Your task to perform on an android device: turn on the 12-hour format for clock Image 0: 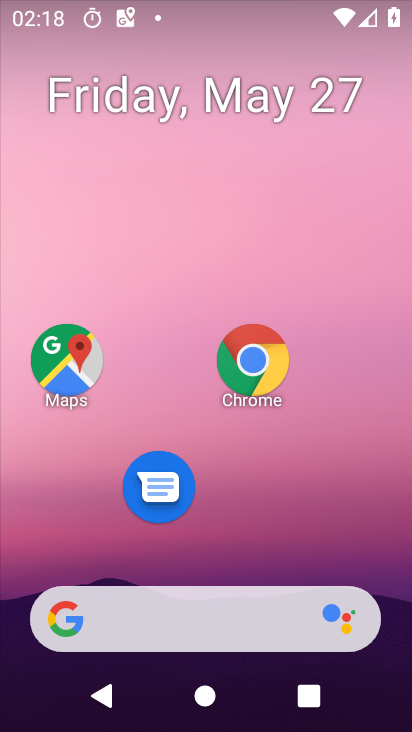
Step 0: drag from (277, 503) to (292, 117)
Your task to perform on an android device: turn on the 12-hour format for clock Image 1: 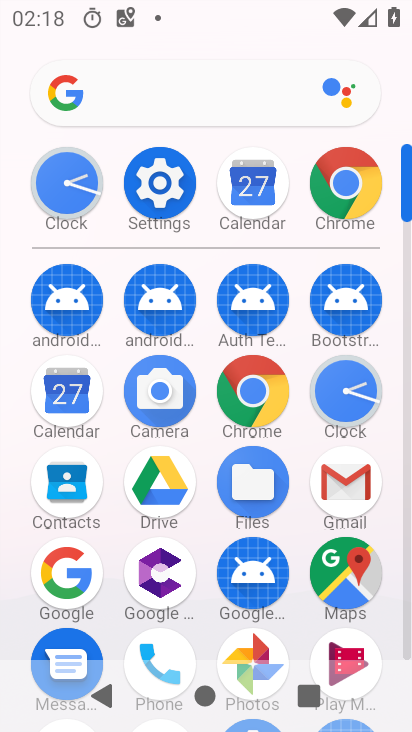
Step 1: click (345, 389)
Your task to perform on an android device: turn on the 12-hour format for clock Image 2: 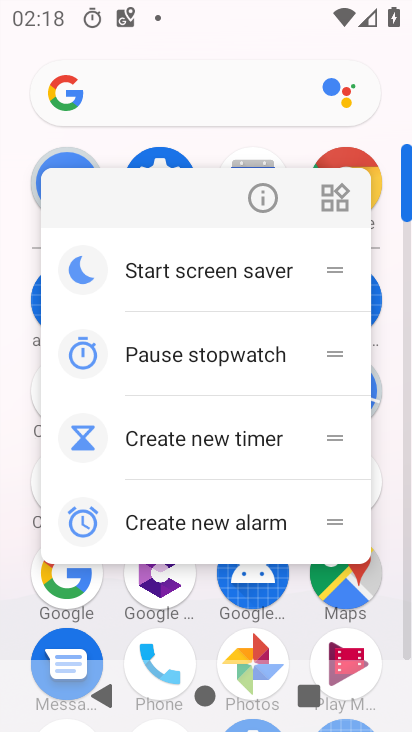
Step 2: click (373, 395)
Your task to perform on an android device: turn on the 12-hour format for clock Image 3: 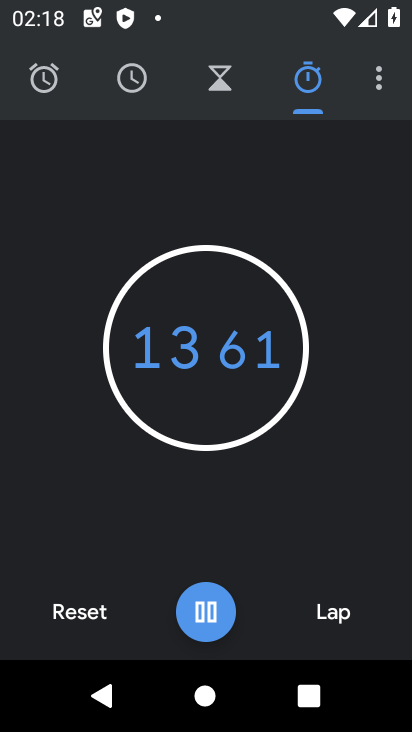
Step 3: click (365, 84)
Your task to perform on an android device: turn on the 12-hour format for clock Image 4: 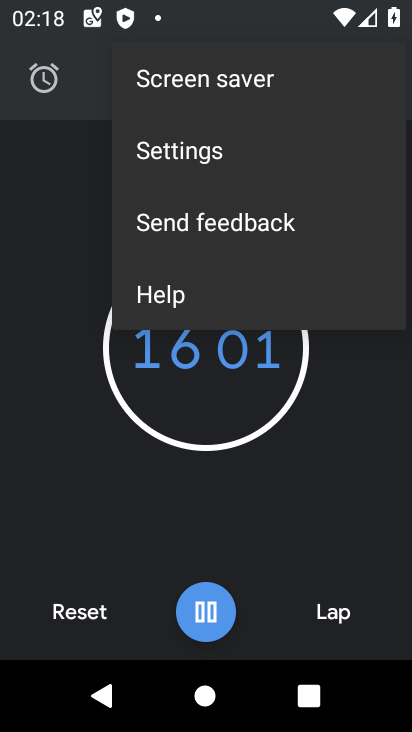
Step 4: click (153, 147)
Your task to perform on an android device: turn on the 12-hour format for clock Image 5: 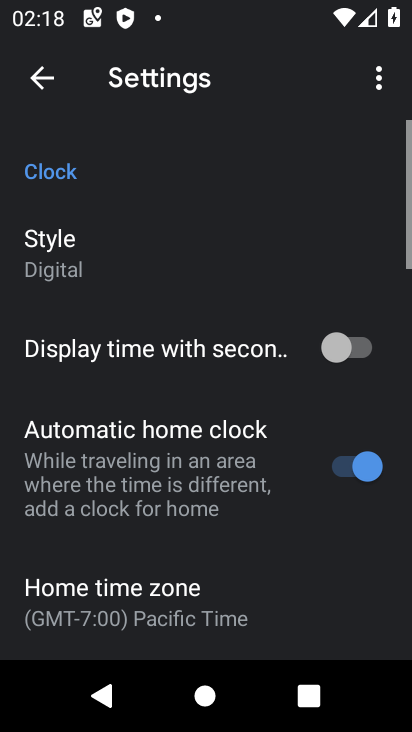
Step 5: drag from (170, 550) to (173, 195)
Your task to perform on an android device: turn on the 12-hour format for clock Image 6: 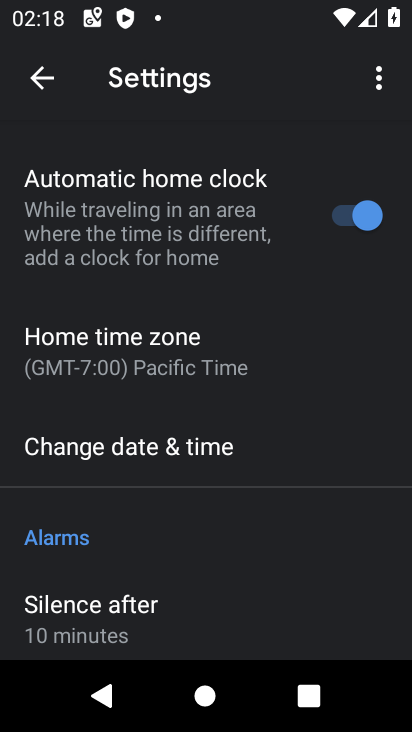
Step 6: click (96, 442)
Your task to perform on an android device: turn on the 12-hour format for clock Image 7: 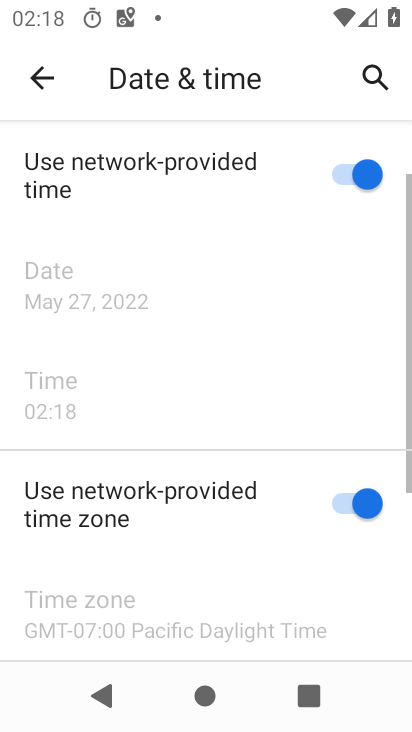
Step 7: drag from (233, 577) to (269, 150)
Your task to perform on an android device: turn on the 12-hour format for clock Image 8: 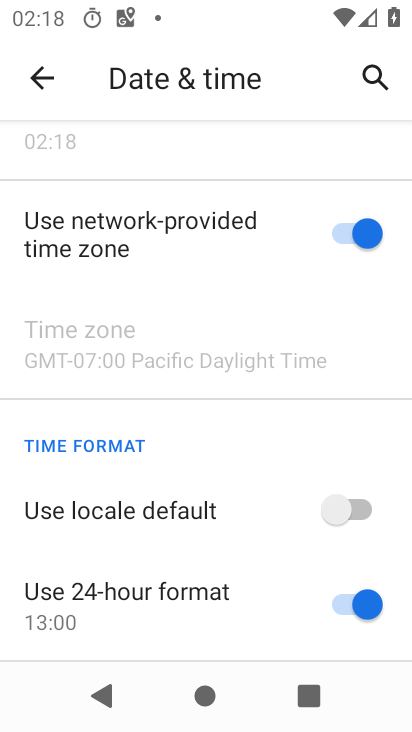
Step 8: click (348, 503)
Your task to perform on an android device: turn on the 12-hour format for clock Image 9: 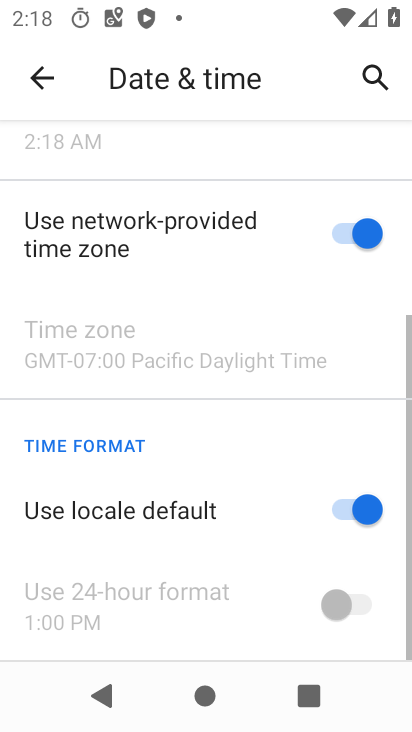
Step 9: task complete